Your task to perform on an android device: Search for pizza restaurants on Maps Image 0: 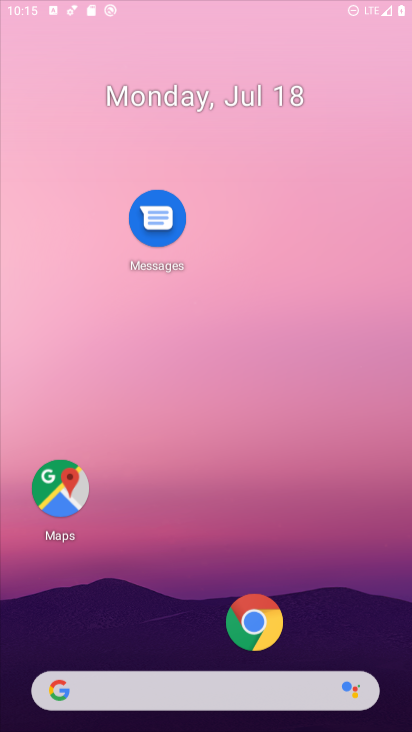
Step 0: drag from (162, 704) to (224, 253)
Your task to perform on an android device: Search for pizza restaurants on Maps Image 1: 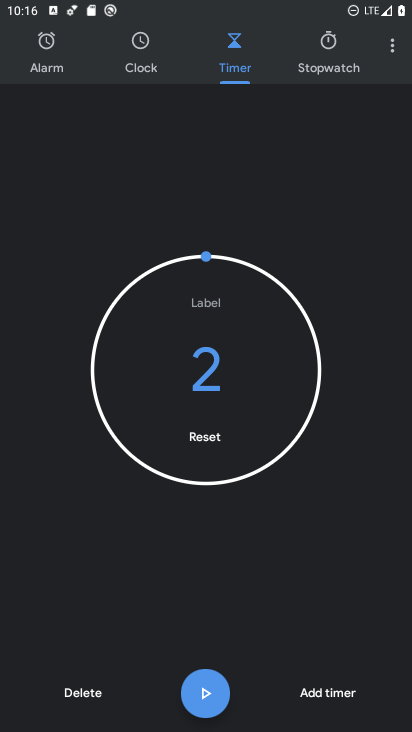
Step 1: press home button
Your task to perform on an android device: Search for pizza restaurants on Maps Image 2: 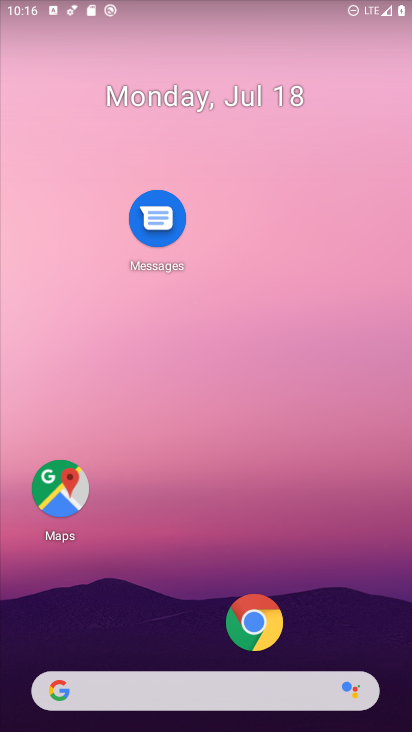
Step 2: drag from (180, 707) to (251, 211)
Your task to perform on an android device: Search for pizza restaurants on Maps Image 3: 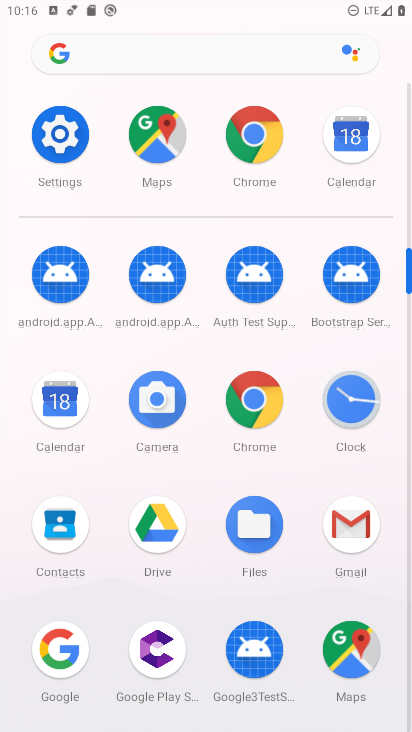
Step 3: click (348, 671)
Your task to perform on an android device: Search for pizza restaurants on Maps Image 4: 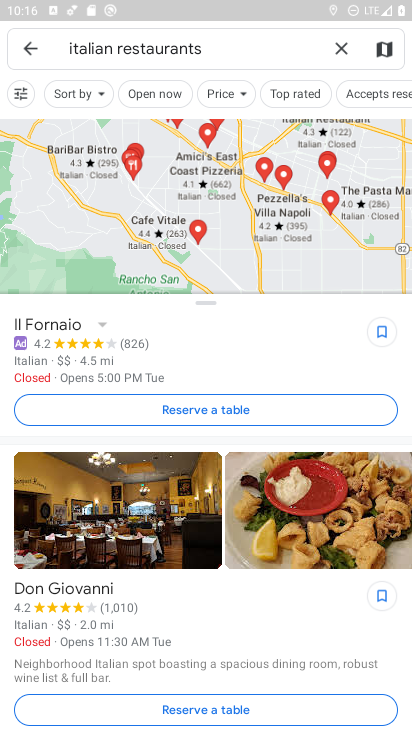
Step 4: click (343, 52)
Your task to perform on an android device: Search for pizza restaurants on Maps Image 5: 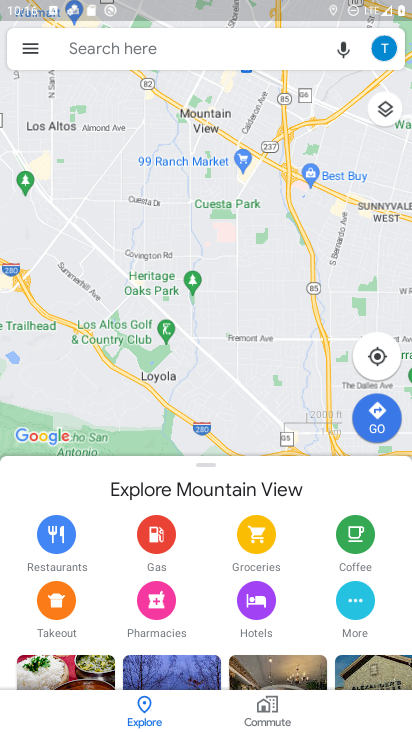
Step 5: click (234, 51)
Your task to perform on an android device: Search for pizza restaurants on Maps Image 6: 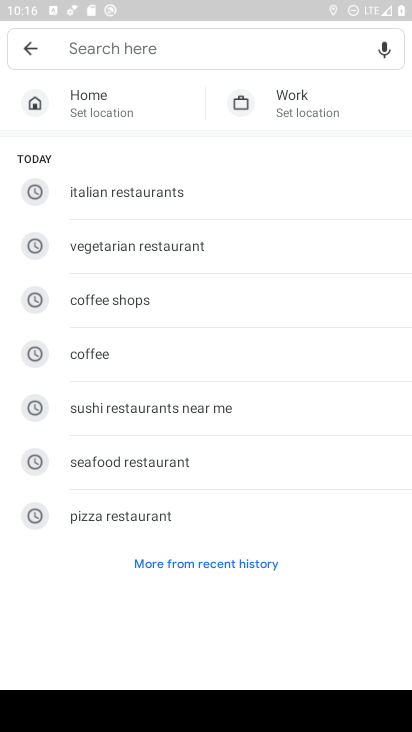
Step 6: click (140, 511)
Your task to perform on an android device: Search for pizza restaurants on Maps Image 7: 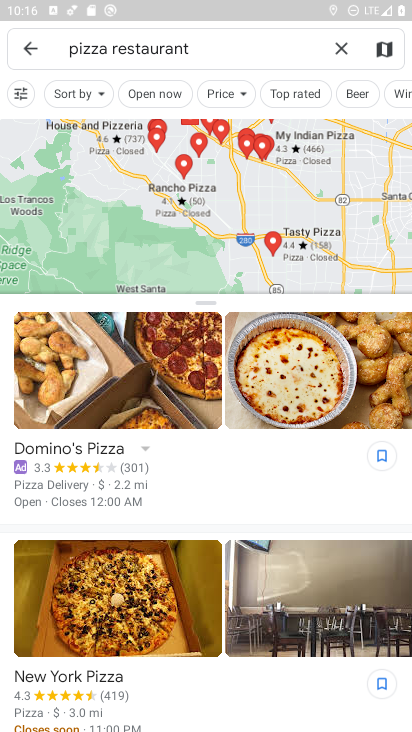
Step 7: task complete